Your task to perform on an android device: move a message to another label in the gmail app Image 0: 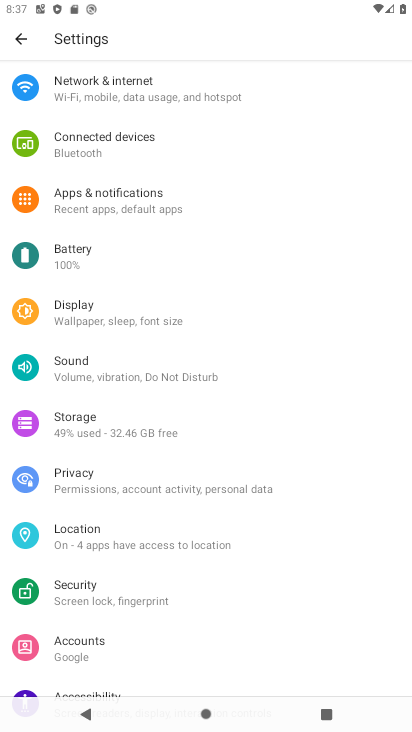
Step 0: press home button
Your task to perform on an android device: move a message to another label in the gmail app Image 1: 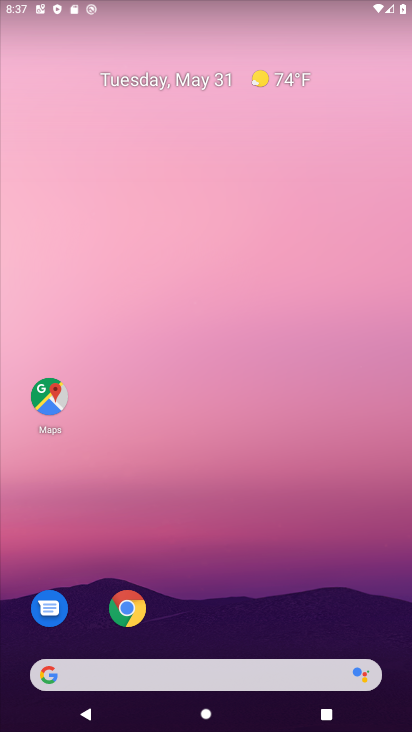
Step 1: drag from (248, 648) to (139, 63)
Your task to perform on an android device: move a message to another label in the gmail app Image 2: 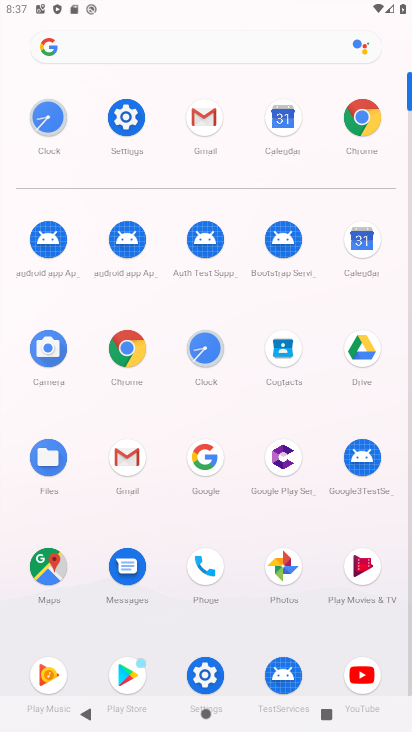
Step 2: click (134, 470)
Your task to perform on an android device: move a message to another label in the gmail app Image 3: 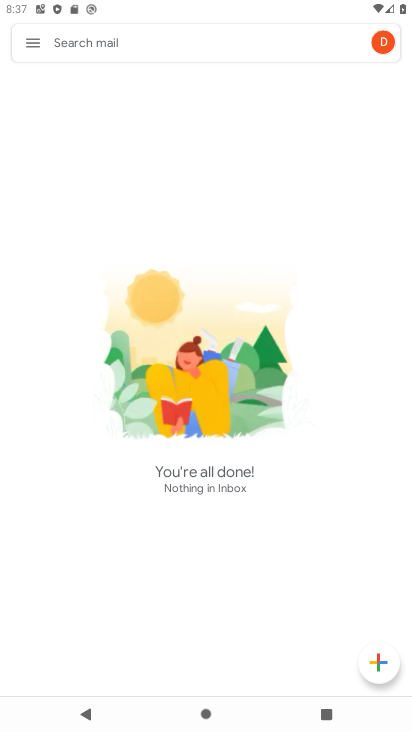
Step 3: click (35, 30)
Your task to perform on an android device: move a message to another label in the gmail app Image 4: 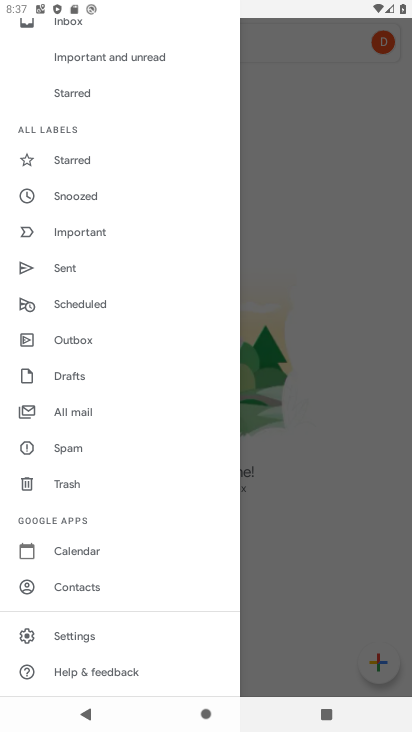
Step 4: click (47, 154)
Your task to perform on an android device: move a message to another label in the gmail app Image 5: 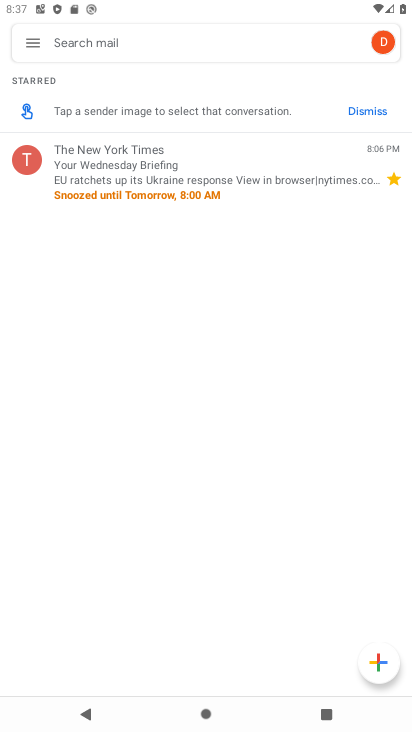
Step 5: click (184, 151)
Your task to perform on an android device: move a message to another label in the gmail app Image 6: 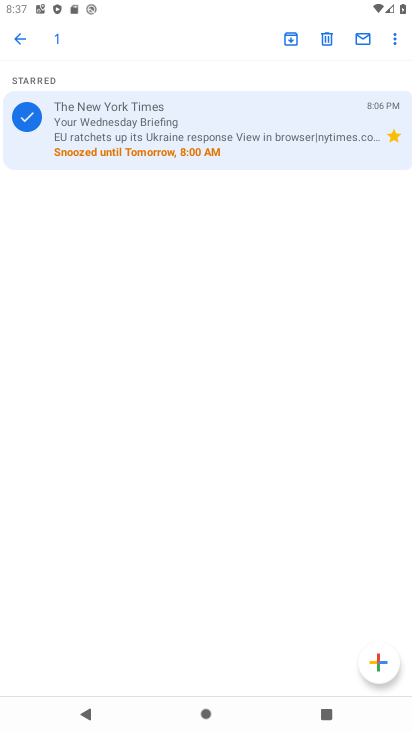
Step 6: click (391, 32)
Your task to perform on an android device: move a message to another label in the gmail app Image 7: 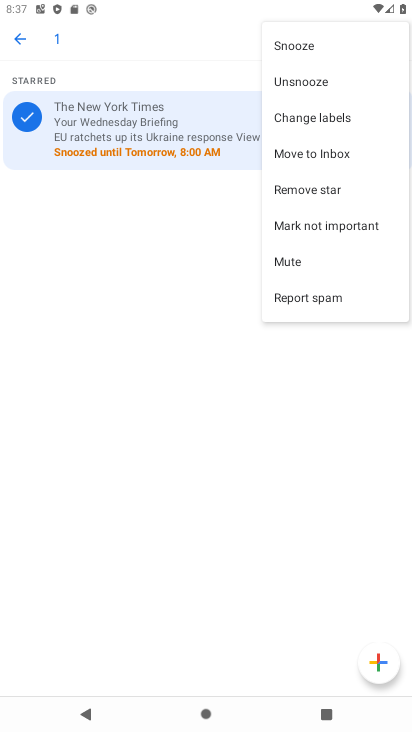
Step 7: click (318, 157)
Your task to perform on an android device: move a message to another label in the gmail app Image 8: 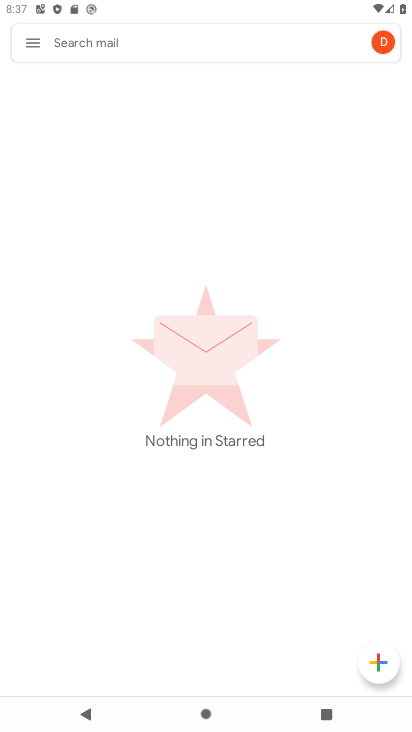
Step 8: task complete